Your task to perform on an android device: Go to Google Image 0: 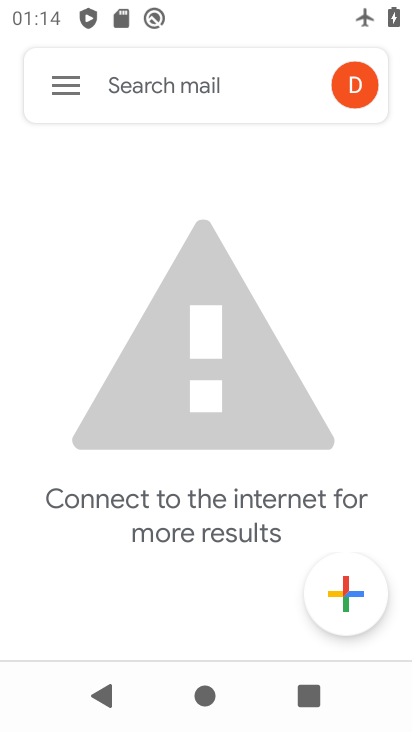
Step 0: press back button
Your task to perform on an android device: Go to Google Image 1: 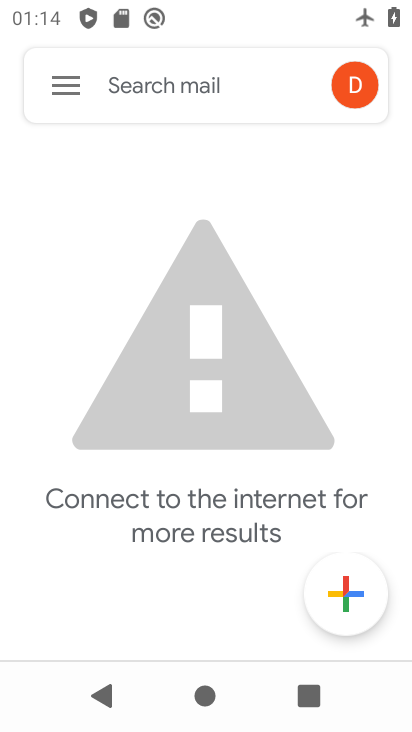
Step 1: press back button
Your task to perform on an android device: Go to Google Image 2: 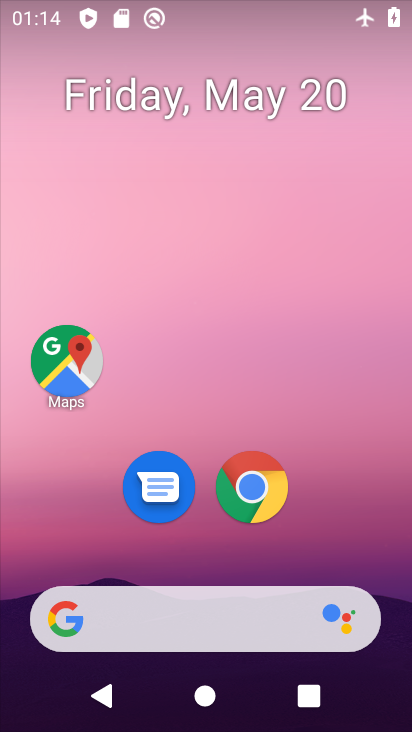
Step 2: drag from (336, 530) to (272, 37)
Your task to perform on an android device: Go to Google Image 3: 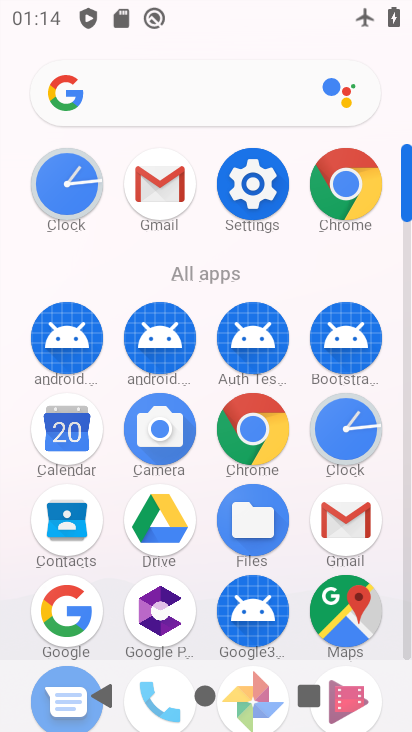
Step 3: drag from (12, 553) to (3, 211)
Your task to perform on an android device: Go to Google Image 4: 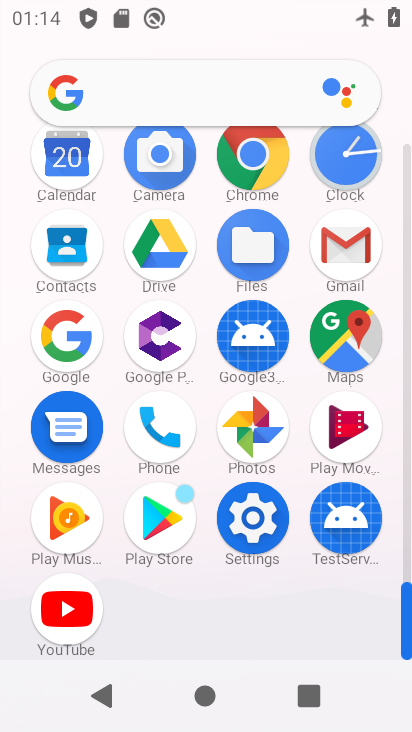
Step 4: click (253, 155)
Your task to perform on an android device: Go to Google Image 5: 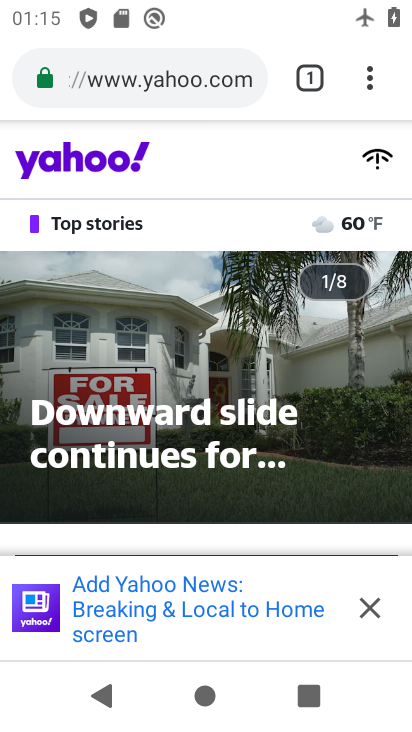
Step 5: click (159, 75)
Your task to perform on an android device: Go to Google Image 6: 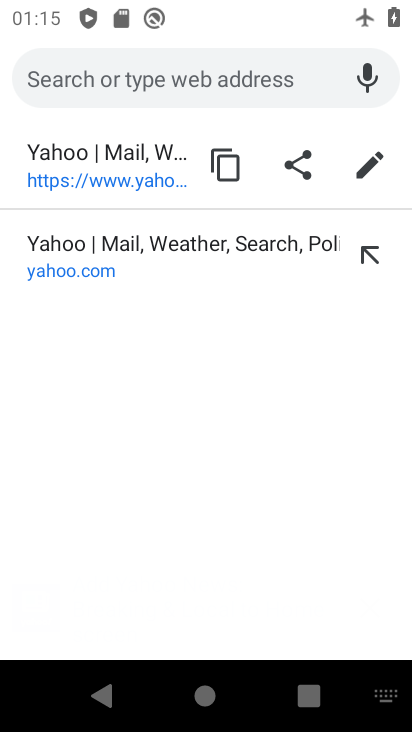
Step 6: type "Google"
Your task to perform on an android device: Go to Google Image 7: 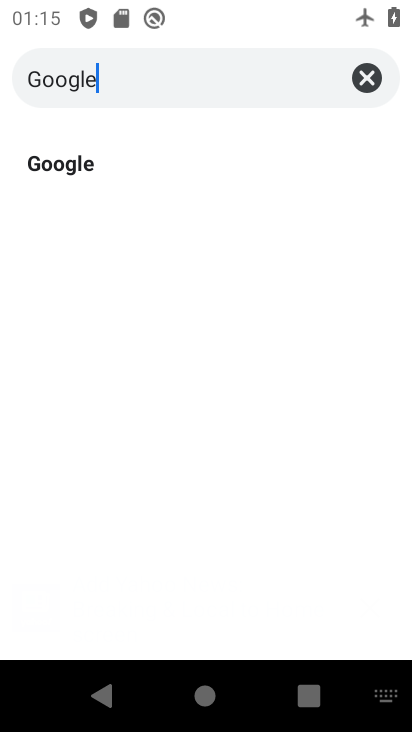
Step 7: type ""
Your task to perform on an android device: Go to Google Image 8: 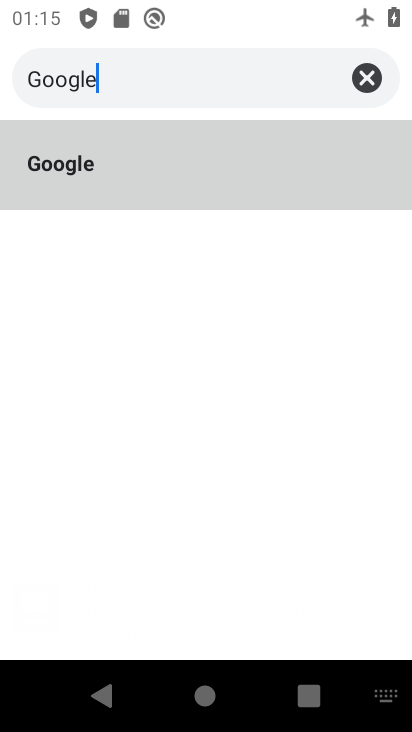
Step 8: click (134, 161)
Your task to perform on an android device: Go to Google Image 9: 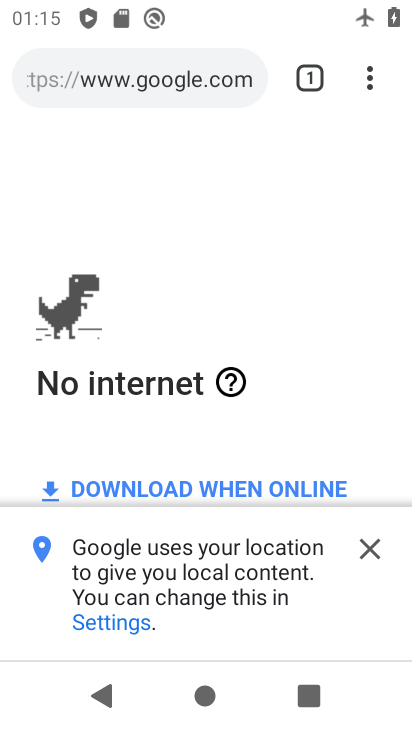
Step 9: drag from (323, 3) to (323, 502)
Your task to perform on an android device: Go to Google Image 10: 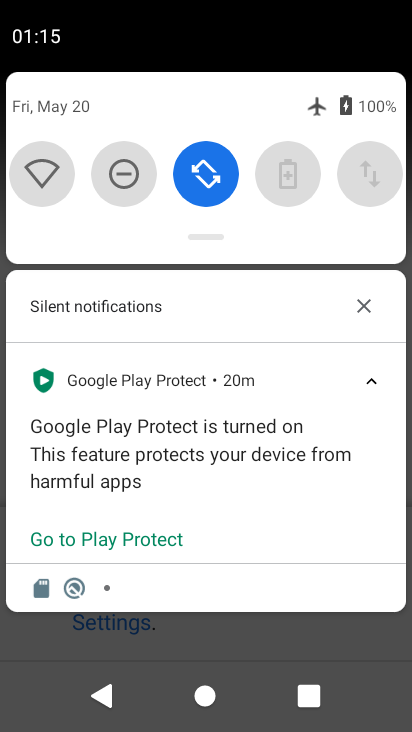
Step 10: click (35, 171)
Your task to perform on an android device: Go to Google Image 11: 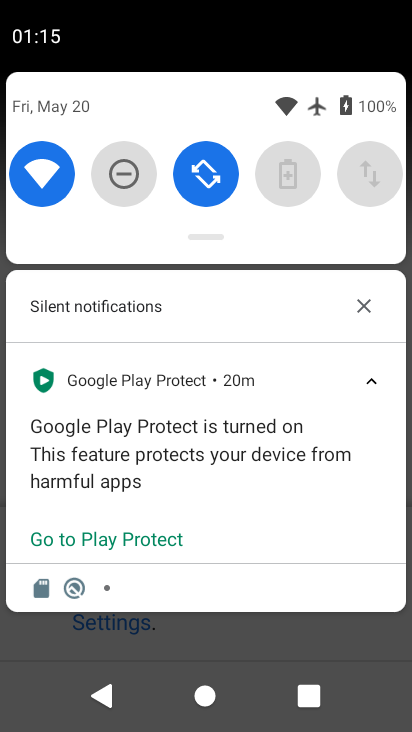
Step 11: drag from (321, 638) to (335, 167)
Your task to perform on an android device: Go to Google Image 12: 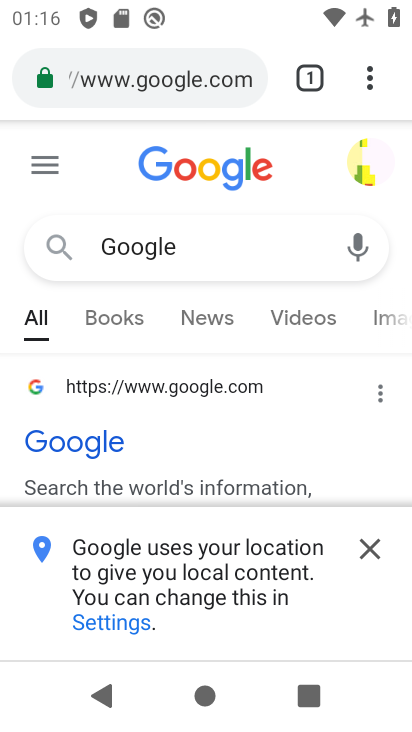
Step 12: click (98, 438)
Your task to perform on an android device: Go to Google Image 13: 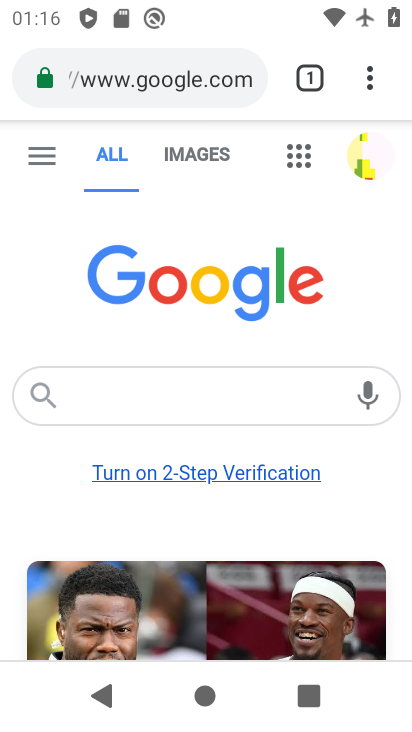
Step 13: task complete